Your task to perform on an android device: What's the weather going to be tomorrow? Image 0: 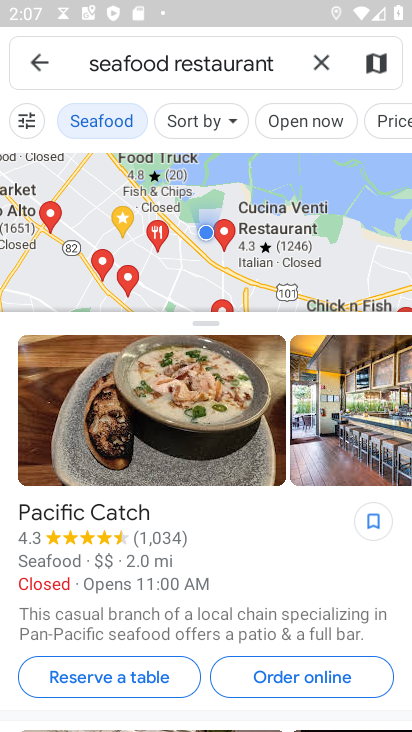
Step 0: task complete